Your task to perform on an android device: Do I have any events tomorrow? Image 0: 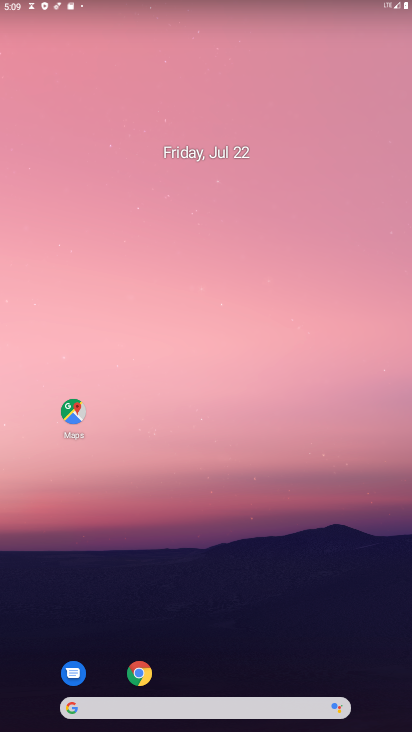
Step 0: drag from (276, 519) to (204, 84)
Your task to perform on an android device: Do I have any events tomorrow? Image 1: 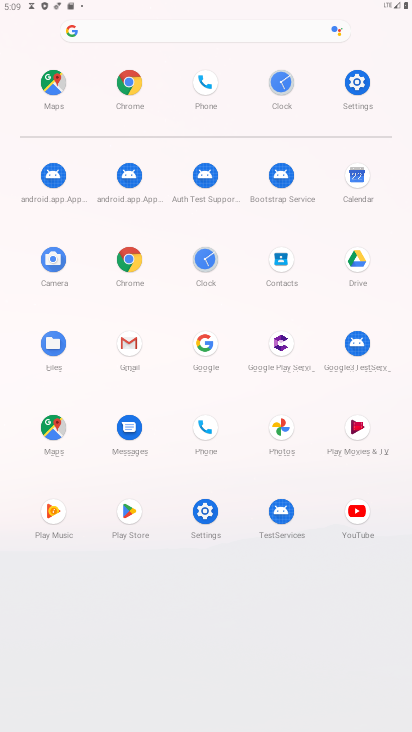
Step 1: click (361, 174)
Your task to perform on an android device: Do I have any events tomorrow? Image 2: 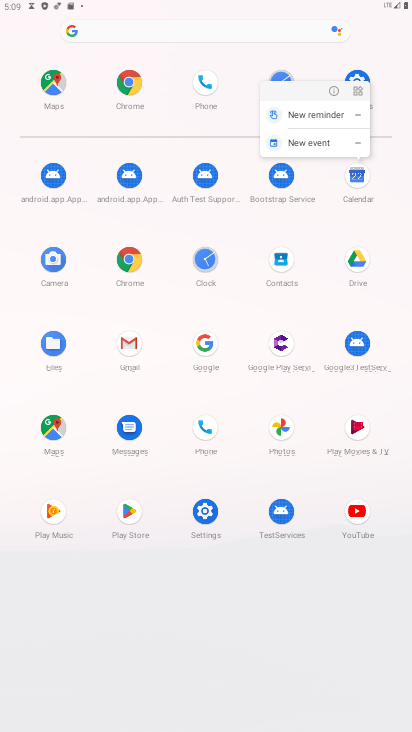
Step 2: click (361, 174)
Your task to perform on an android device: Do I have any events tomorrow? Image 3: 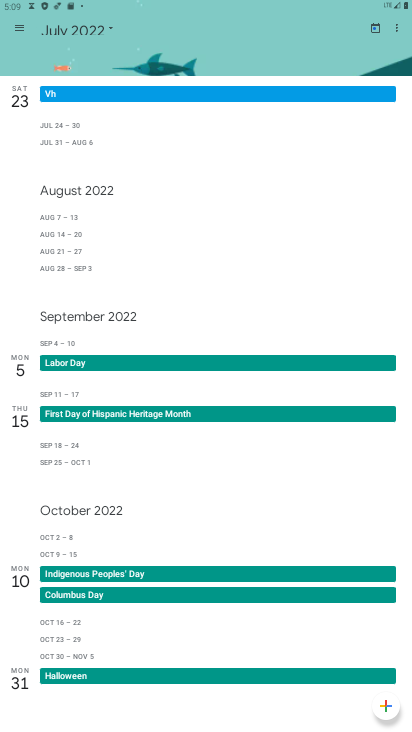
Step 3: click (88, 33)
Your task to perform on an android device: Do I have any events tomorrow? Image 4: 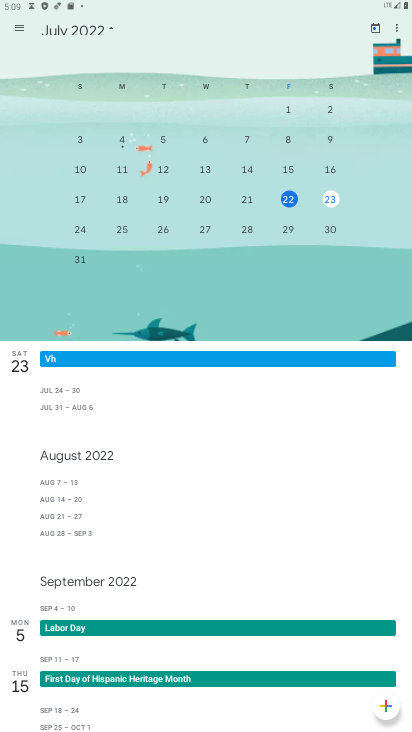
Step 4: click (333, 193)
Your task to perform on an android device: Do I have any events tomorrow? Image 5: 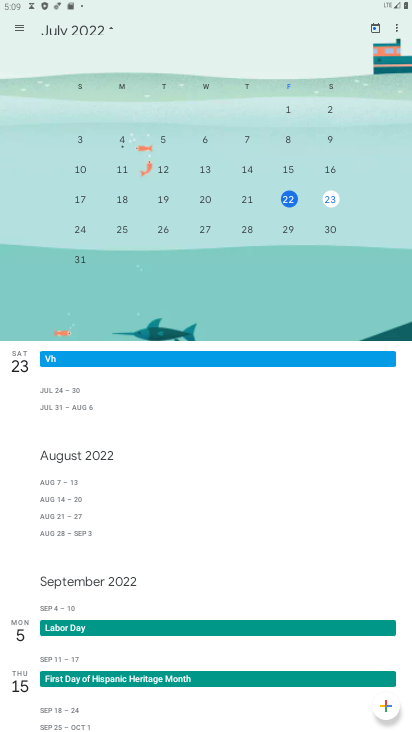
Step 5: task complete